Your task to perform on an android device: Open my contact list Image 0: 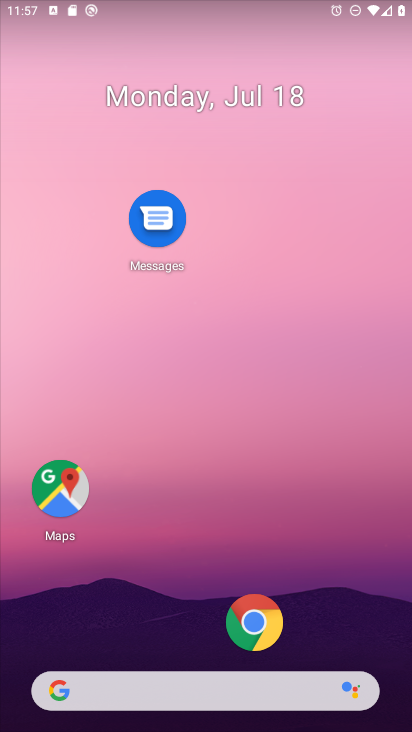
Step 0: drag from (263, 658) to (286, 233)
Your task to perform on an android device: Open my contact list Image 1: 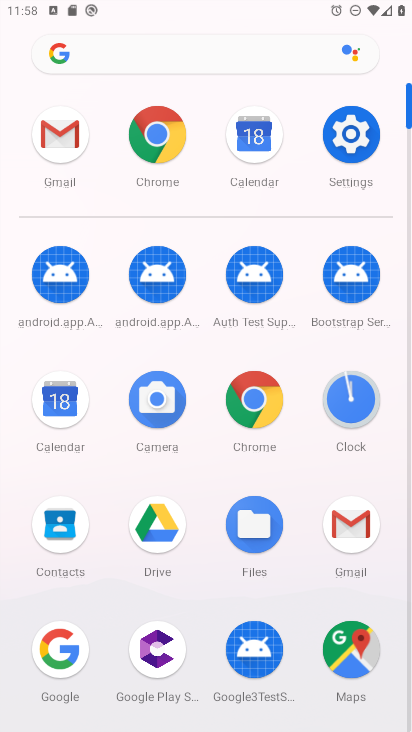
Step 1: click (69, 528)
Your task to perform on an android device: Open my contact list Image 2: 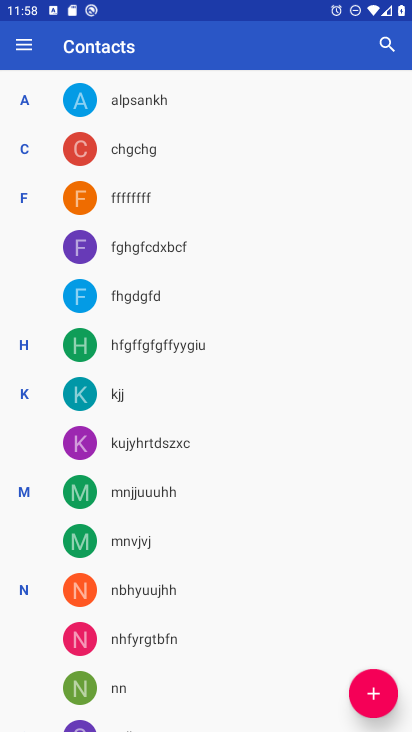
Step 2: task complete